Your task to perform on an android device: Open Google Chrome and click the shortcut for Amazon.com Image 0: 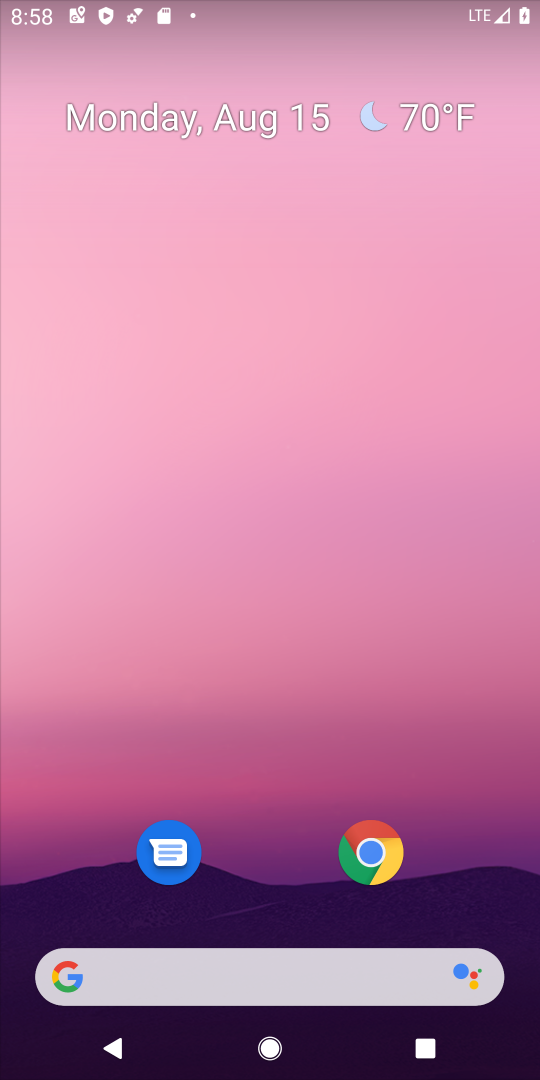
Step 0: drag from (230, 969) to (383, 234)
Your task to perform on an android device: Open Google Chrome and click the shortcut for Amazon.com Image 1: 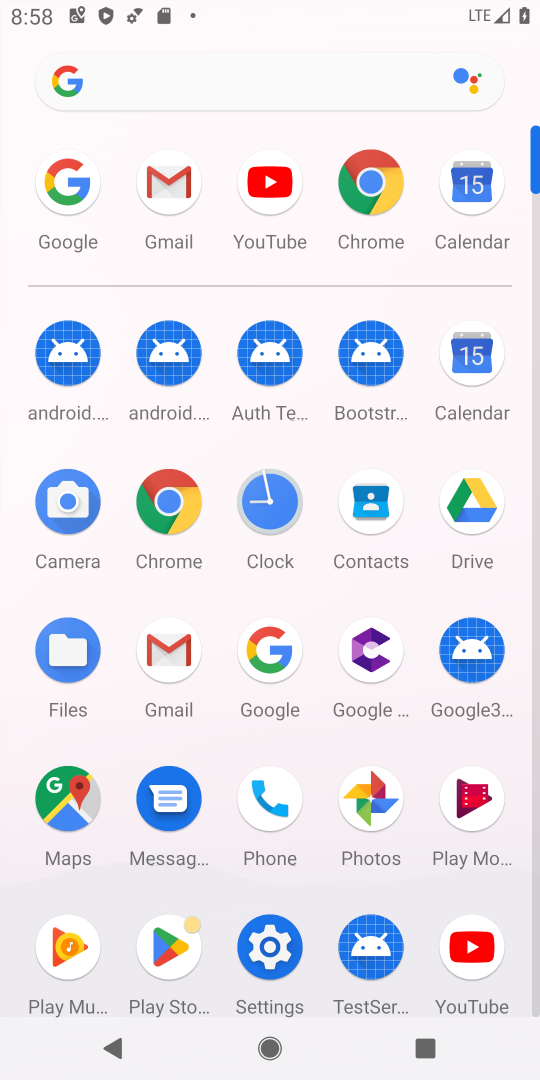
Step 1: click (371, 184)
Your task to perform on an android device: Open Google Chrome and click the shortcut for Amazon.com Image 2: 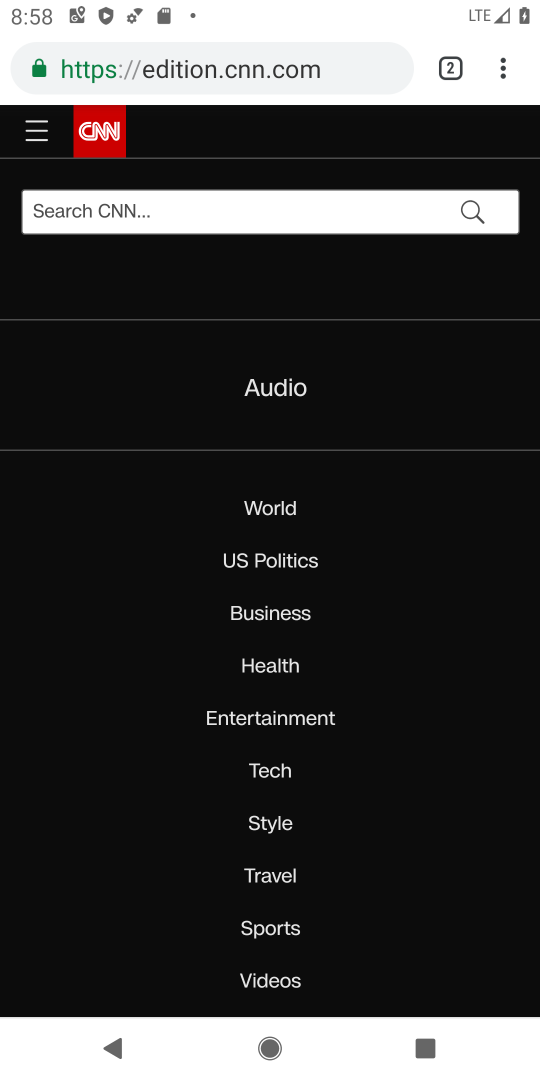
Step 2: click (389, 76)
Your task to perform on an android device: Open Google Chrome and click the shortcut for Amazon.com Image 3: 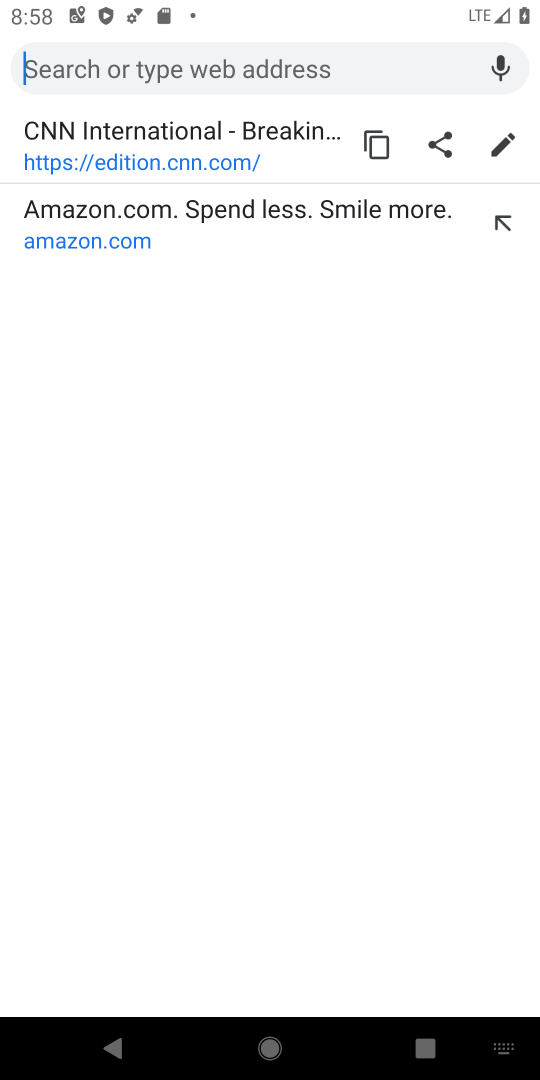
Step 3: click (255, 222)
Your task to perform on an android device: Open Google Chrome and click the shortcut for Amazon.com Image 4: 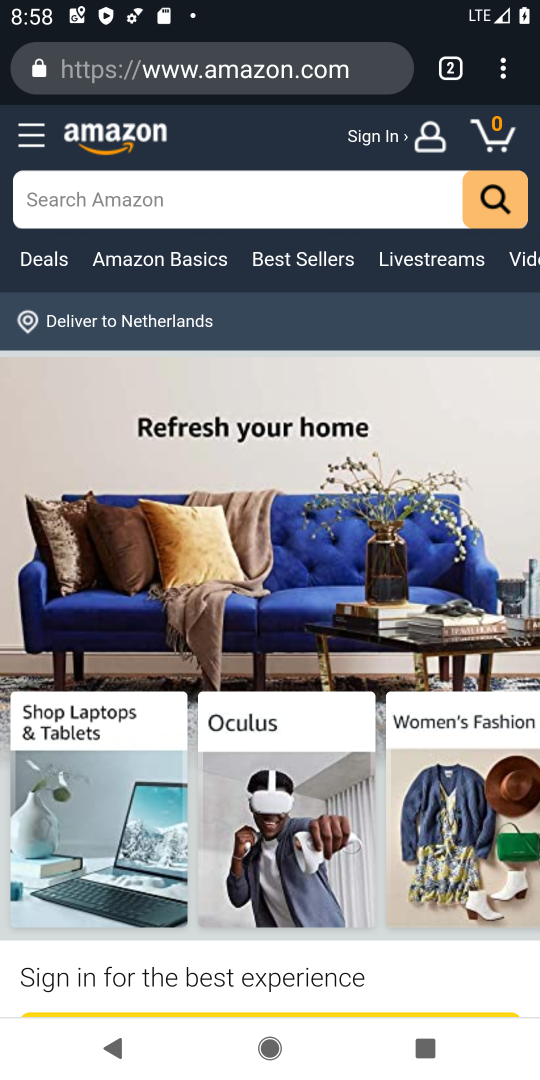
Step 4: drag from (506, 71) to (317, 784)
Your task to perform on an android device: Open Google Chrome and click the shortcut for Amazon.com Image 5: 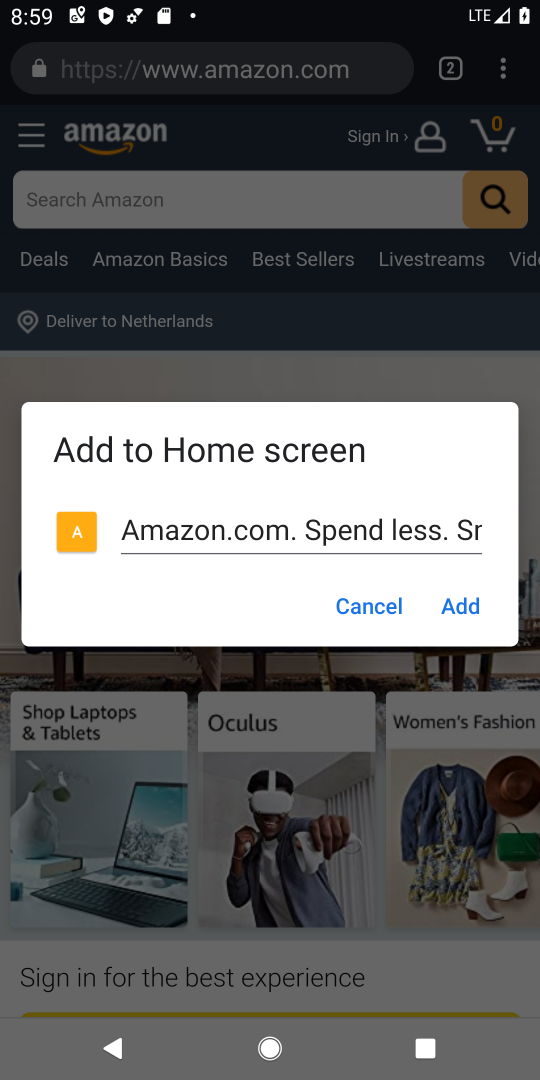
Step 5: click (480, 611)
Your task to perform on an android device: Open Google Chrome and click the shortcut for Amazon.com Image 6: 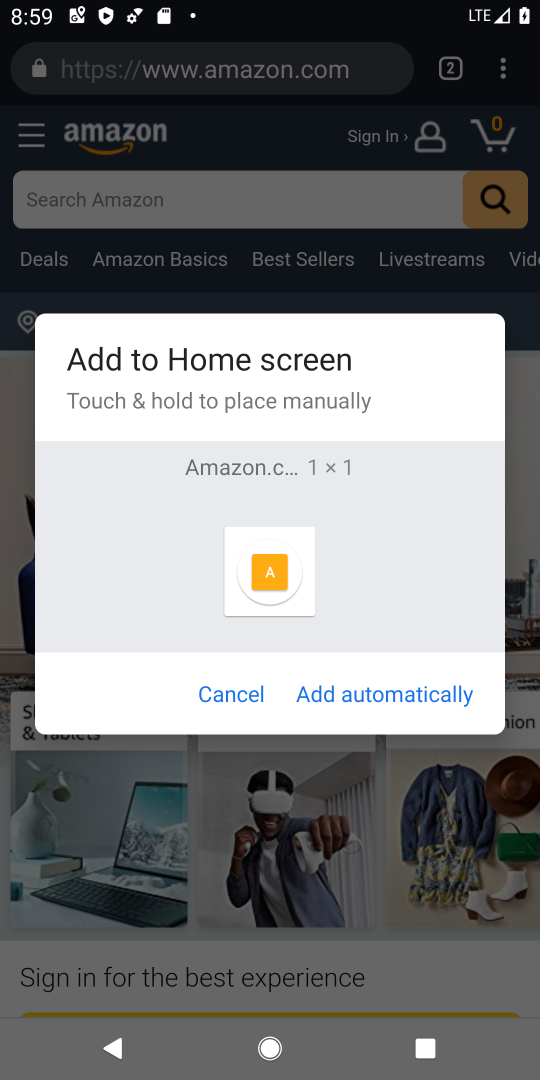
Step 6: click (426, 686)
Your task to perform on an android device: Open Google Chrome and click the shortcut for Amazon.com Image 7: 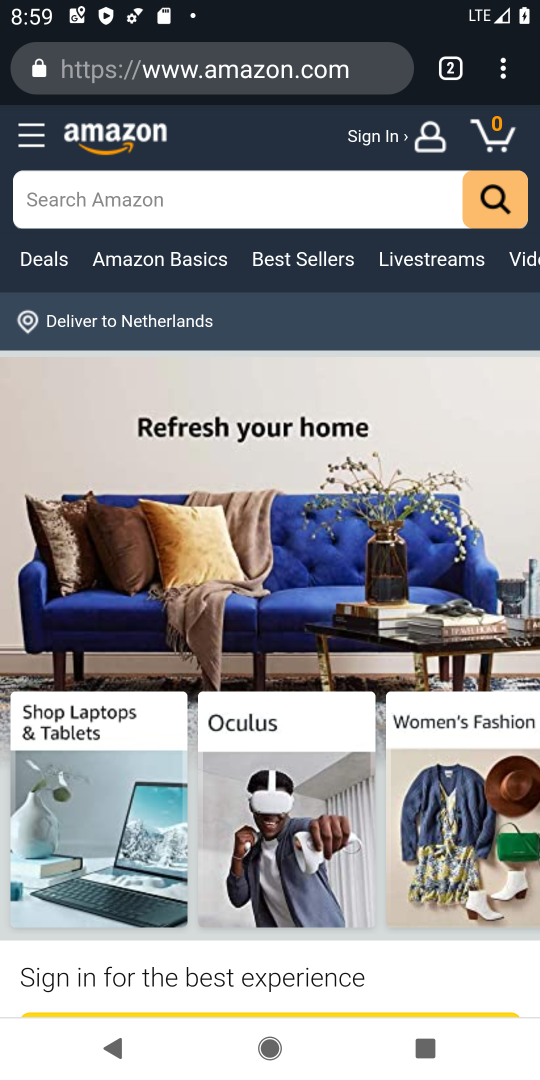
Step 7: task complete